Your task to perform on an android device: open the mobile data screen to see how much data has been used Image 0: 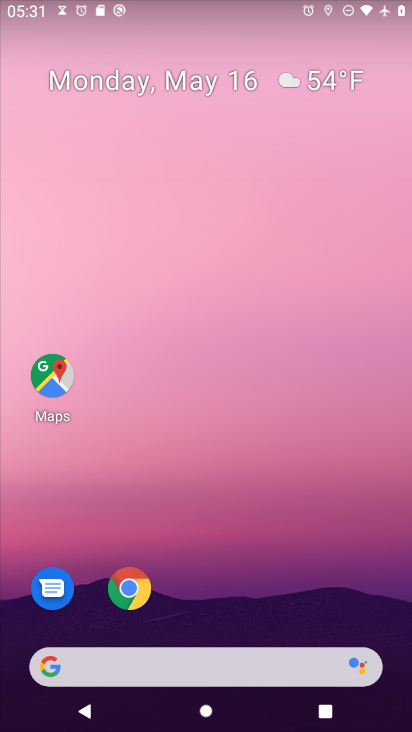
Step 0: drag from (244, 506) to (243, 75)
Your task to perform on an android device: open the mobile data screen to see how much data has been used Image 1: 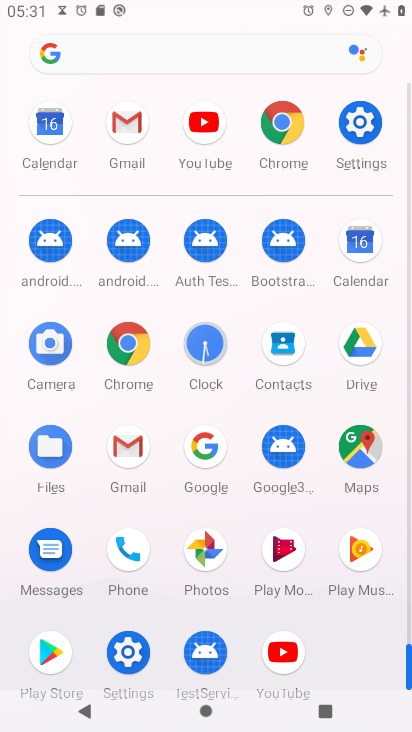
Step 1: click (359, 119)
Your task to perform on an android device: open the mobile data screen to see how much data has been used Image 2: 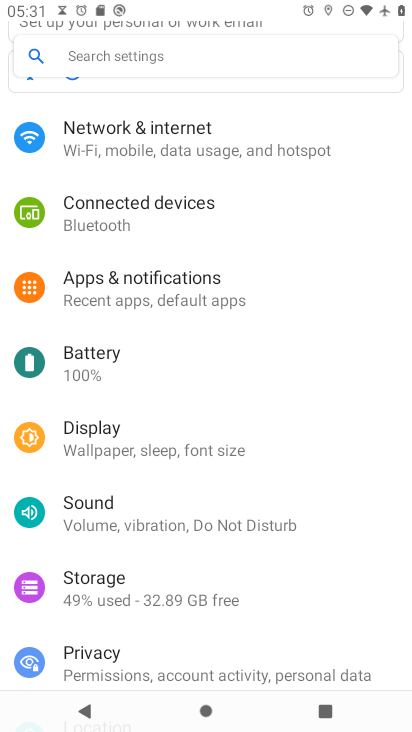
Step 2: click (236, 133)
Your task to perform on an android device: open the mobile data screen to see how much data has been used Image 3: 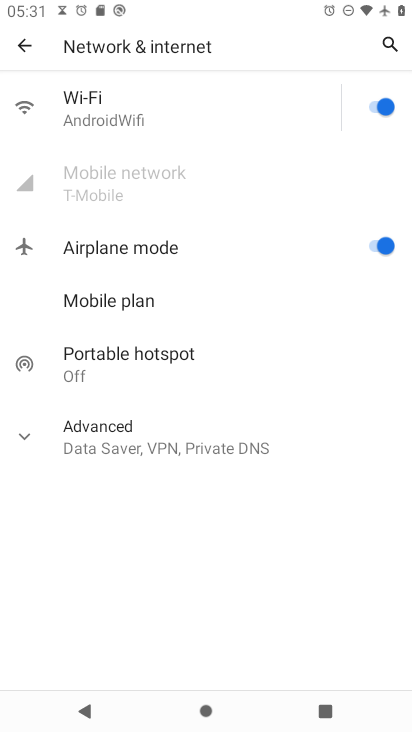
Step 3: task complete